Your task to perform on an android device: create a new album in the google photos Image 0: 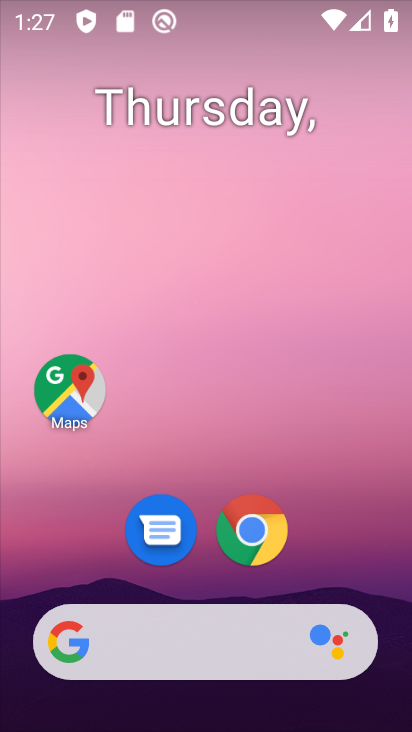
Step 0: drag from (283, 526) to (339, 6)
Your task to perform on an android device: create a new album in the google photos Image 1: 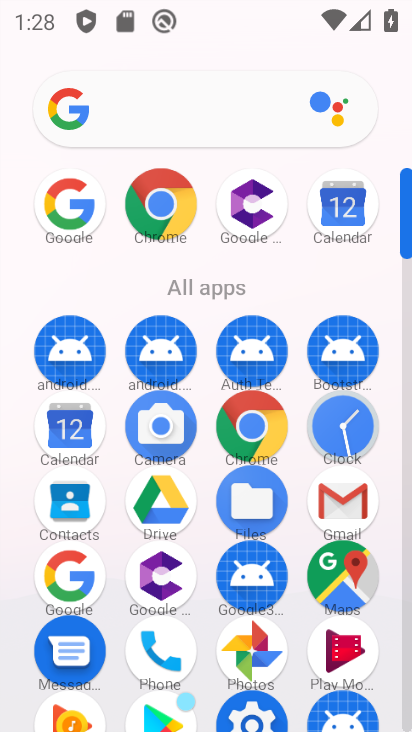
Step 1: click (235, 656)
Your task to perform on an android device: create a new album in the google photos Image 2: 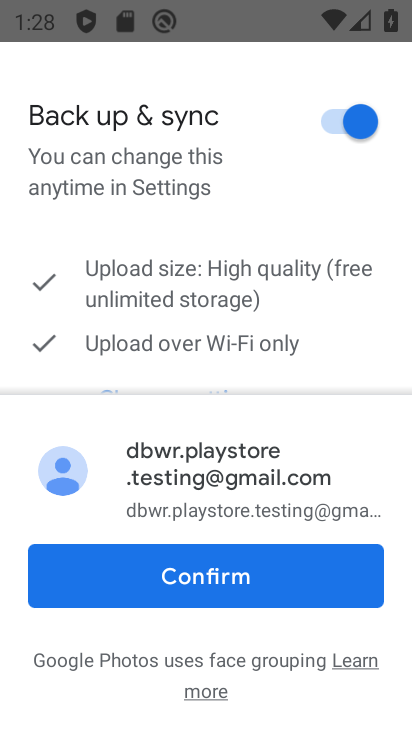
Step 2: click (324, 574)
Your task to perform on an android device: create a new album in the google photos Image 3: 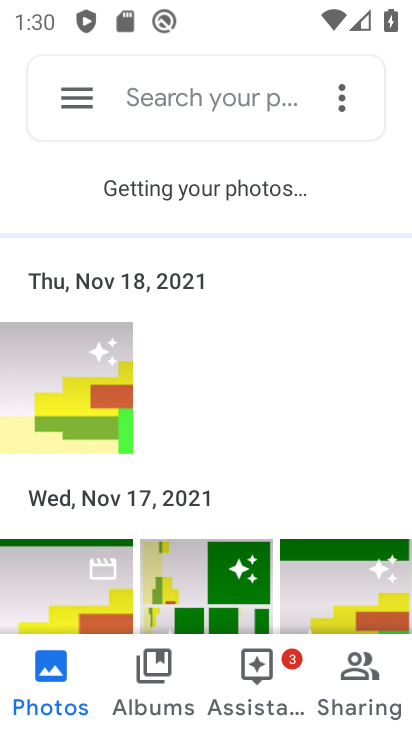
Step 3: click (97, 385)
Your task to perform on an android device: create a new album in the google photos Image 4: 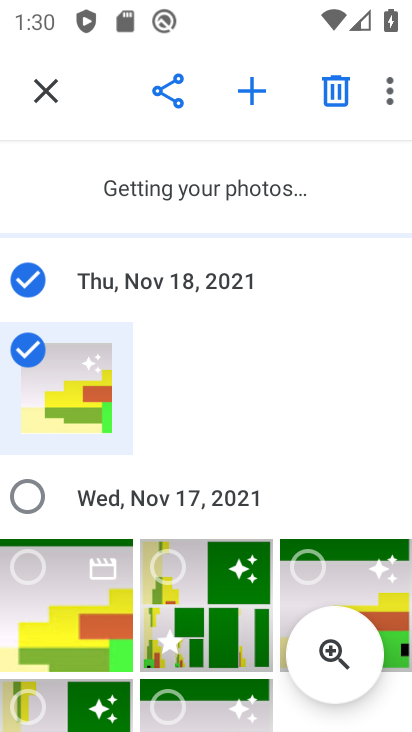
Step 4: click (259, 95)
Your task to perform on an android device: create a new album in the google photos Image 5: 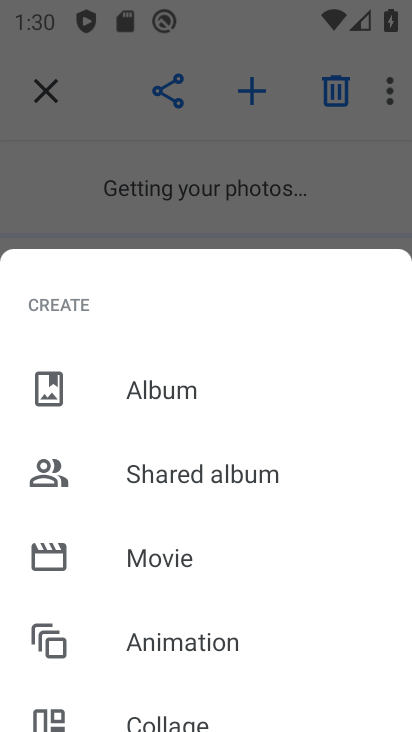
Step 5: click (192, 406)
Your task to perform on an android device: create a new album in the google photos Image 6: 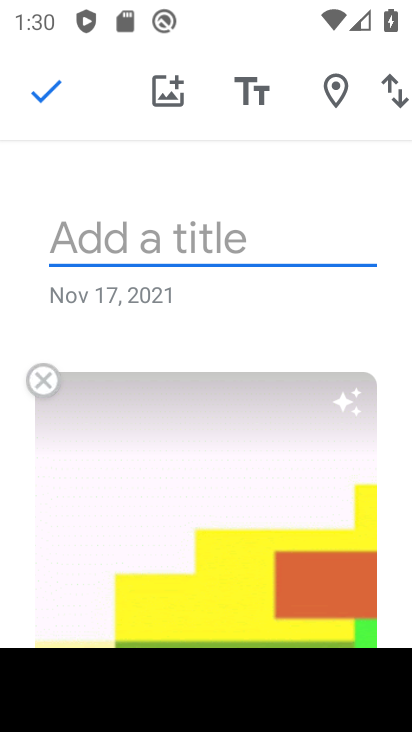
Step 6: type "bn bn "
Your task to perform on an android device: create a new album in the google photos Image 7: 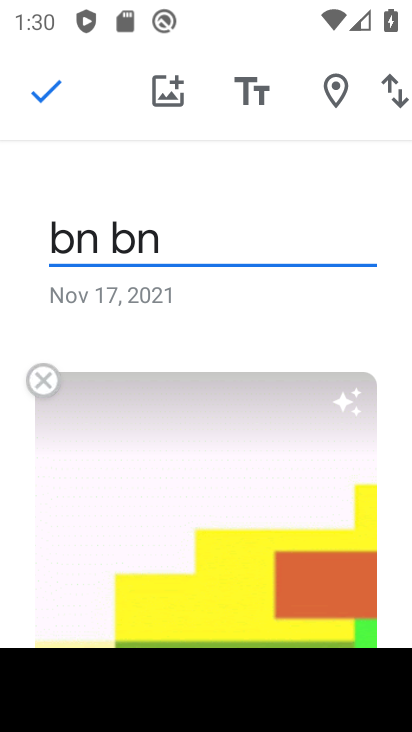
Step 7: click (56, 79)
Your task to perform on an android device: create a new album in the google photos Image 8: 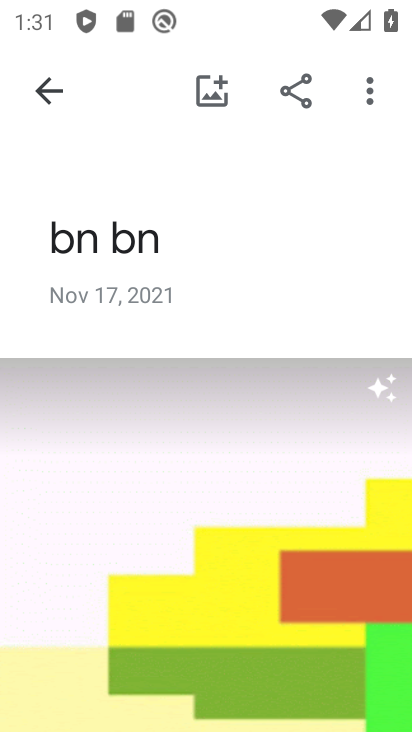
Step 8: task complete